Your task to perform on an android device: Open settings Image 0: 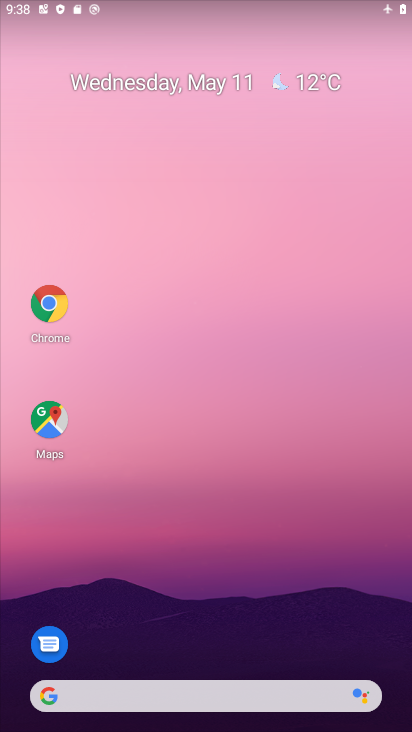
Step 0: drag from (164, 650) to (149, 247)
Your task to perform on an android device: Open settings Image 1: 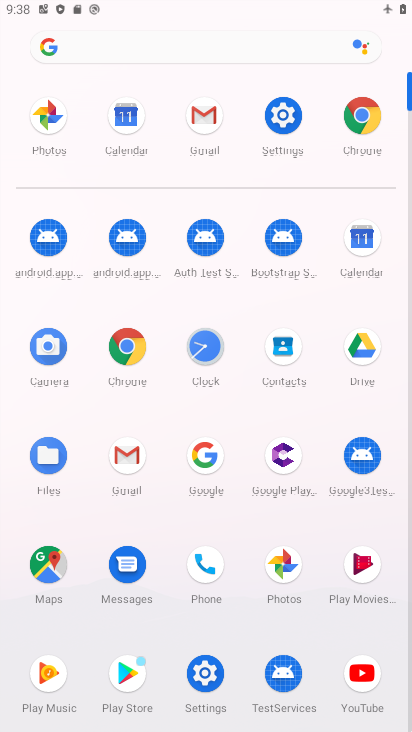
Step 1: click (287, 130)
Your task to perform on an android device: Open settings Image 2: 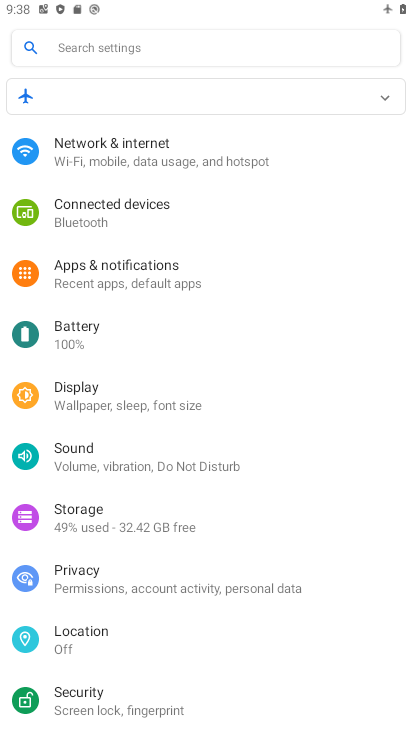
Step 2: task complete